Your task to perform on an android device: Google the capital of Canada Image 0: 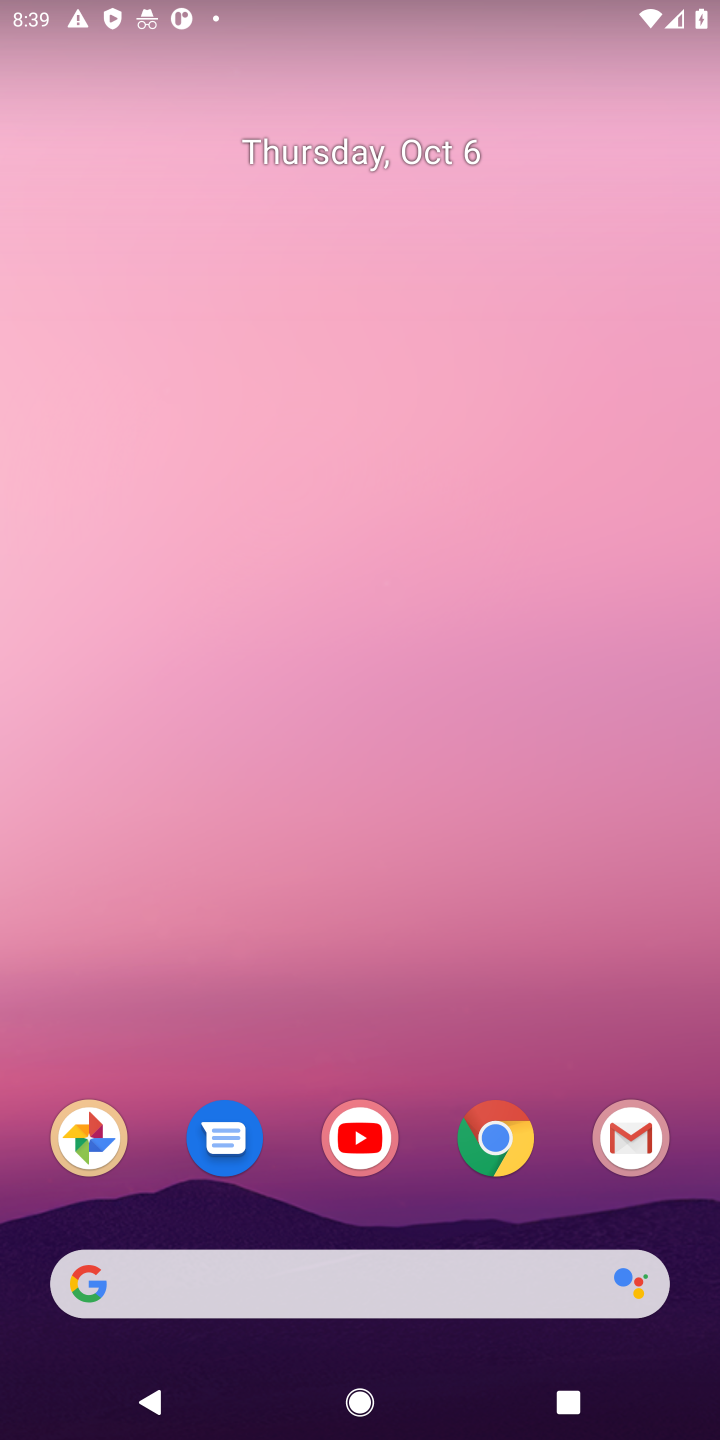
Step 0: click (491, 1131)
Your task to perform on an android device: Google the capital of Canada Image 1: 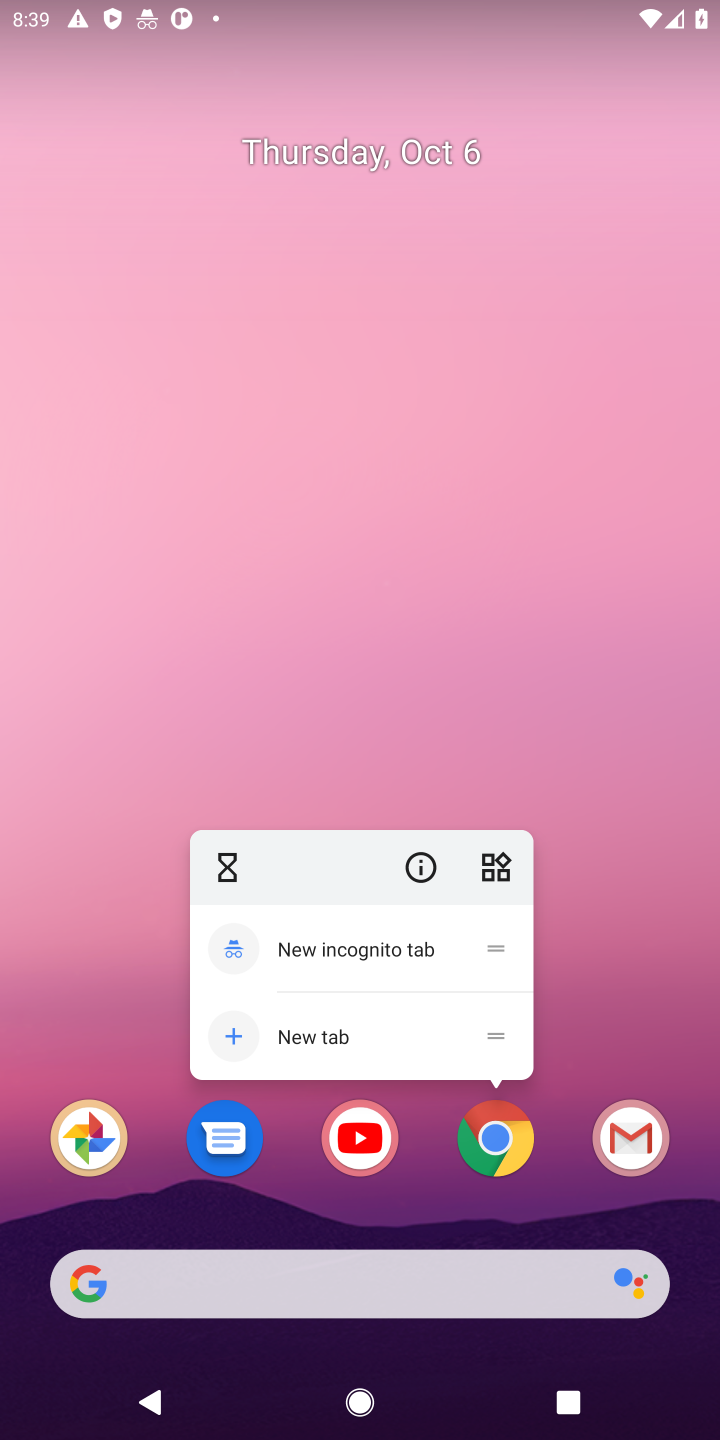
Step 1: click (493, 1143)
Your task to perform on an android device: Google the capital of Canada Image 2: 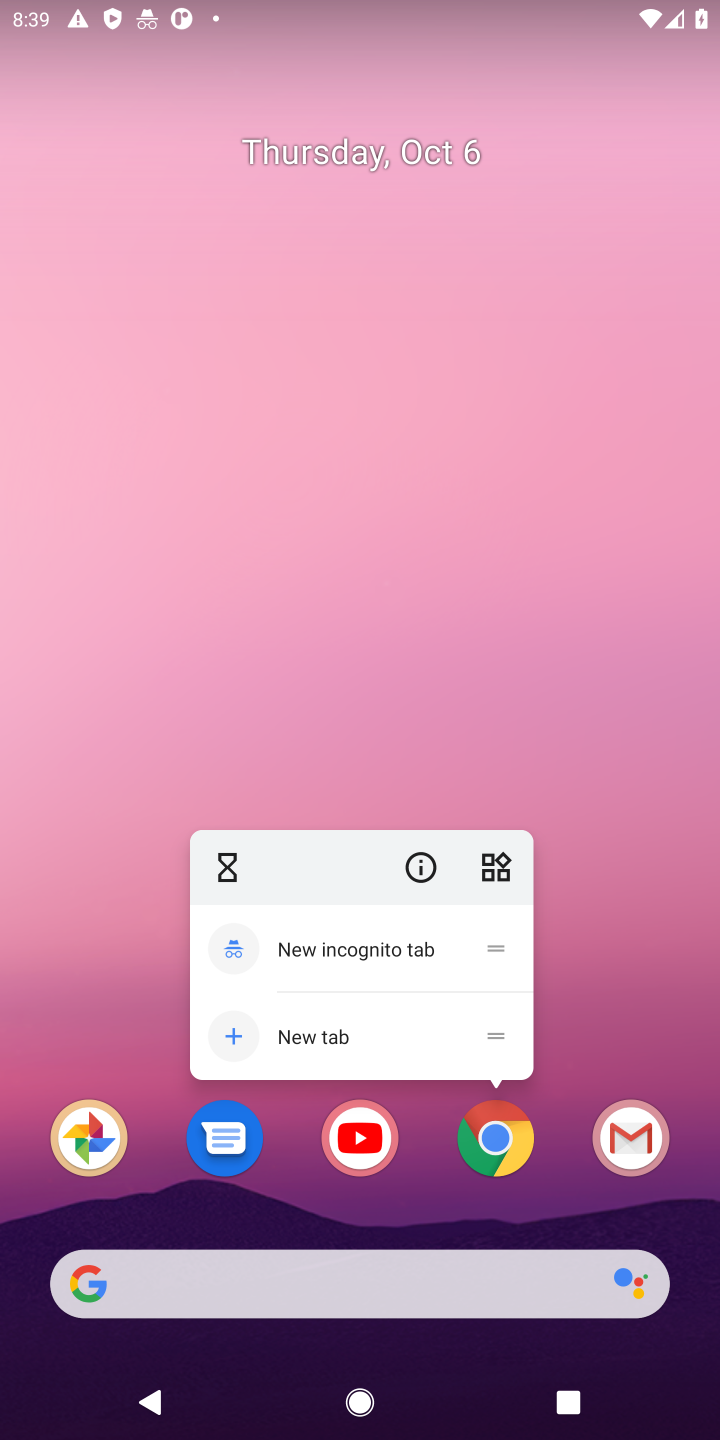
Step 2: click (493, 1121)
Your task to perform on an android device: Google the capital of Canada Image 3: 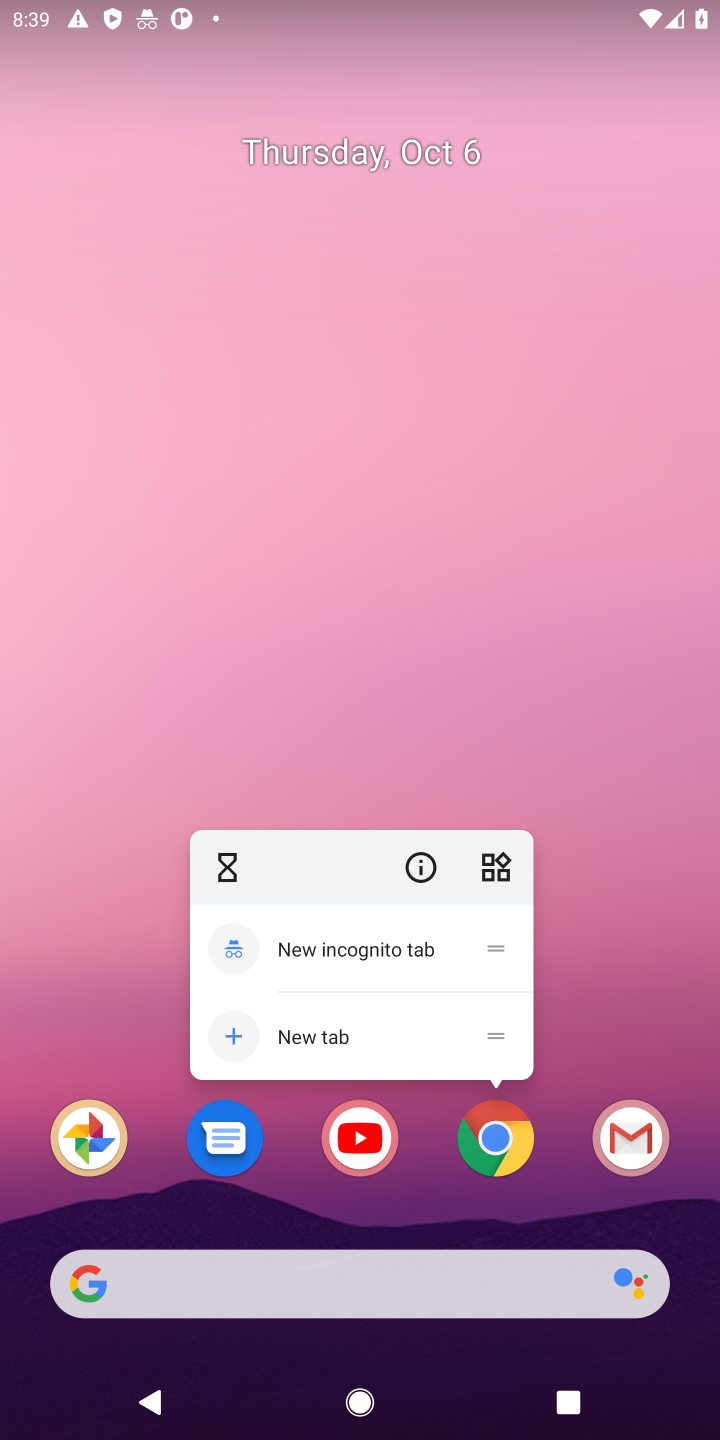
Step 3: click (493, 1128)
Your task to perform on an android device: Google the capital of Canada Image 4: 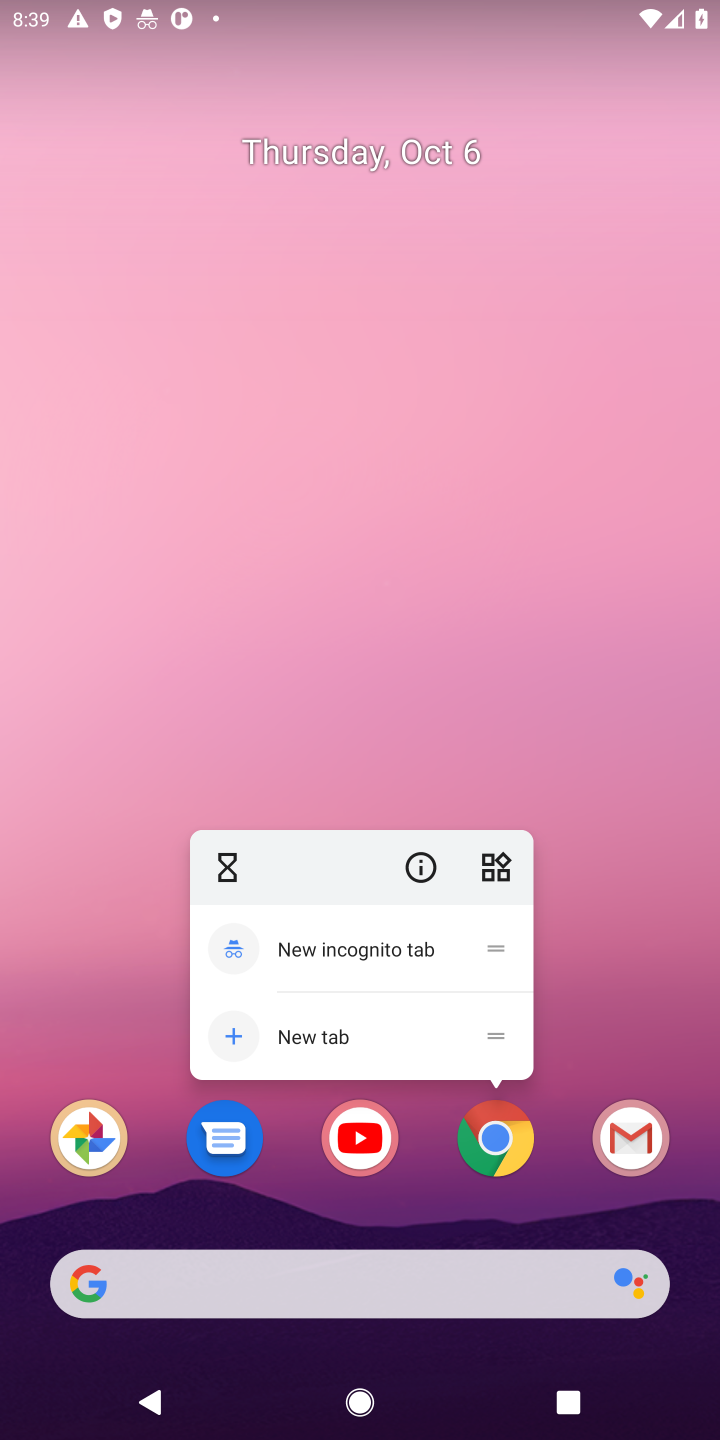
Step 4: click (498, 1139)
Your task to perform on an android device: Google the capital of Canada Image 5: 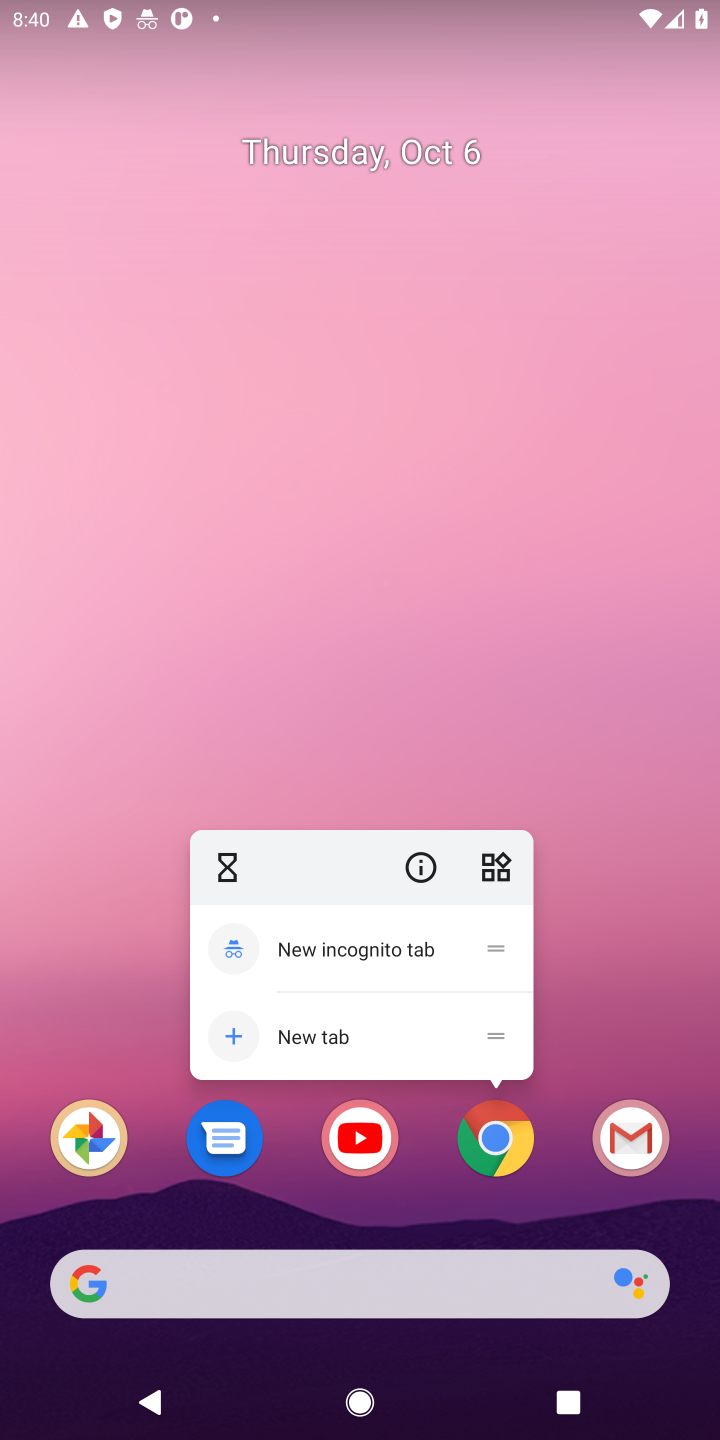
Step 5: click (498, 1144)
Your task to perform on an android device: Google the capital of Canada Image 6: 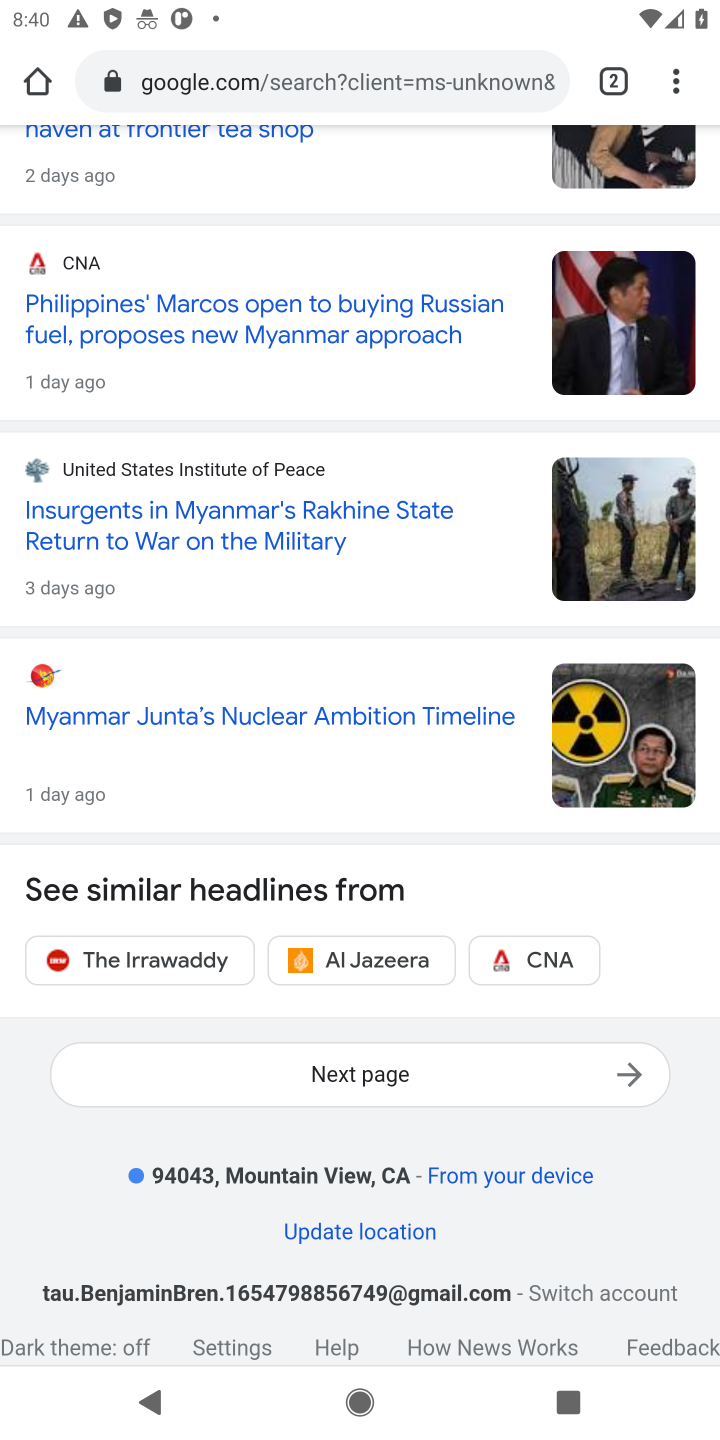
Step 6: click (438, 80)
Your task to perform on an android device: Google the capital of Canada Image 7: 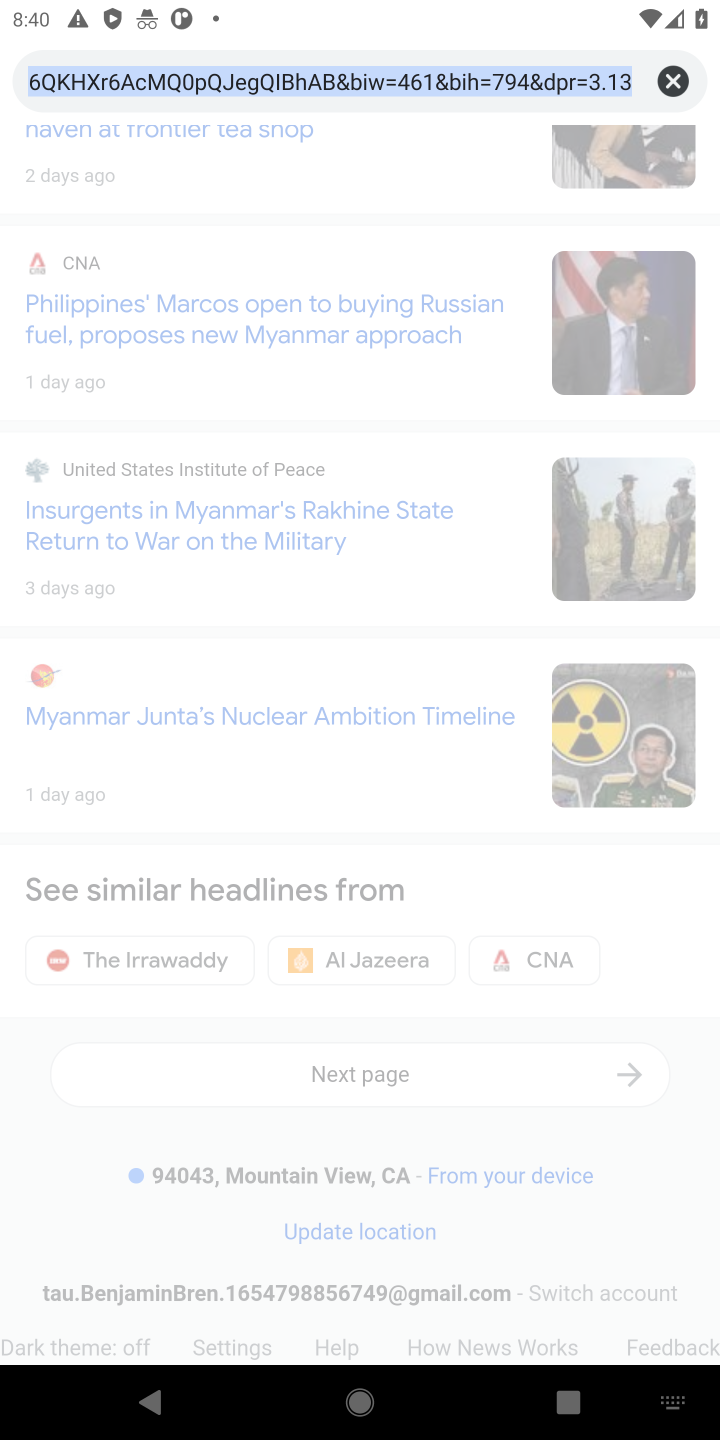
Step 7: click (673, 83)
Your task to perform on an android device: Google the capital of Canada Image 8: 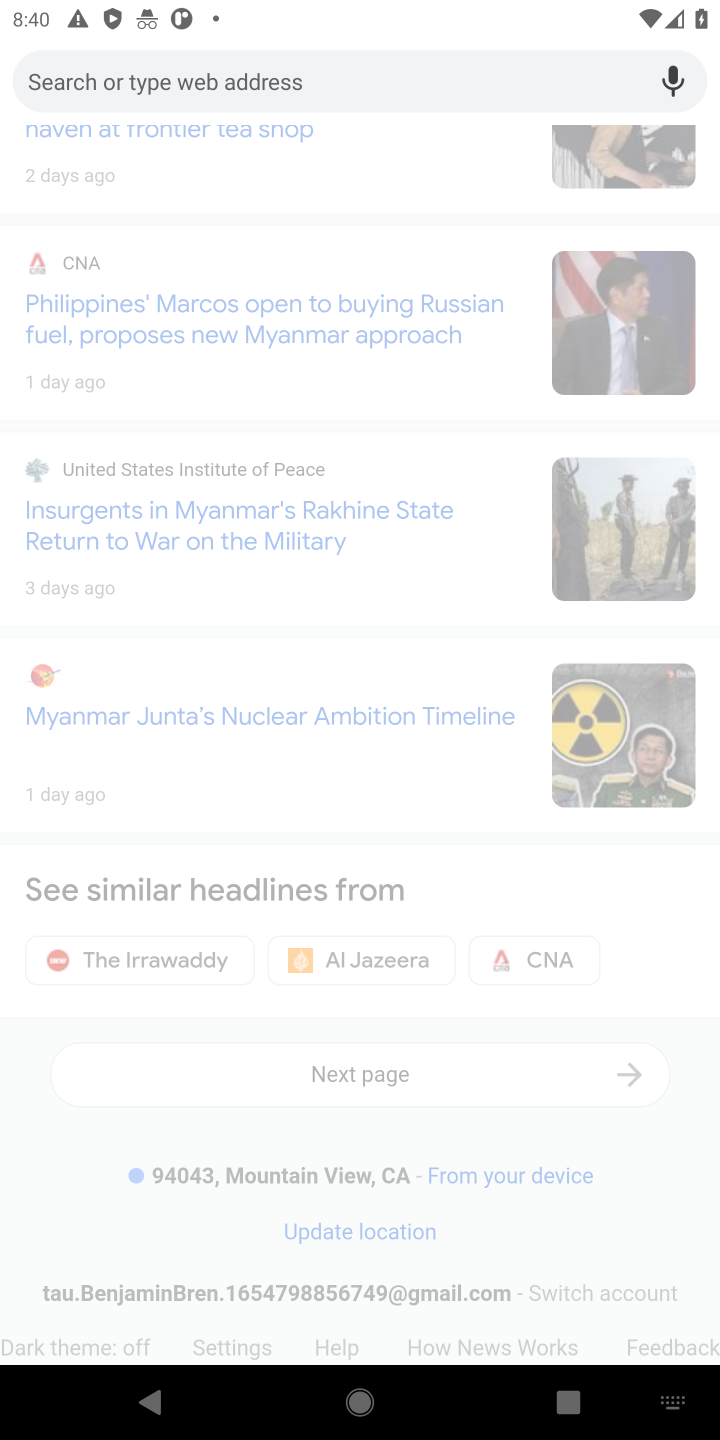
Step 8: press enter
Your task to perform on an android device: Google the capital of Canada Image 9: 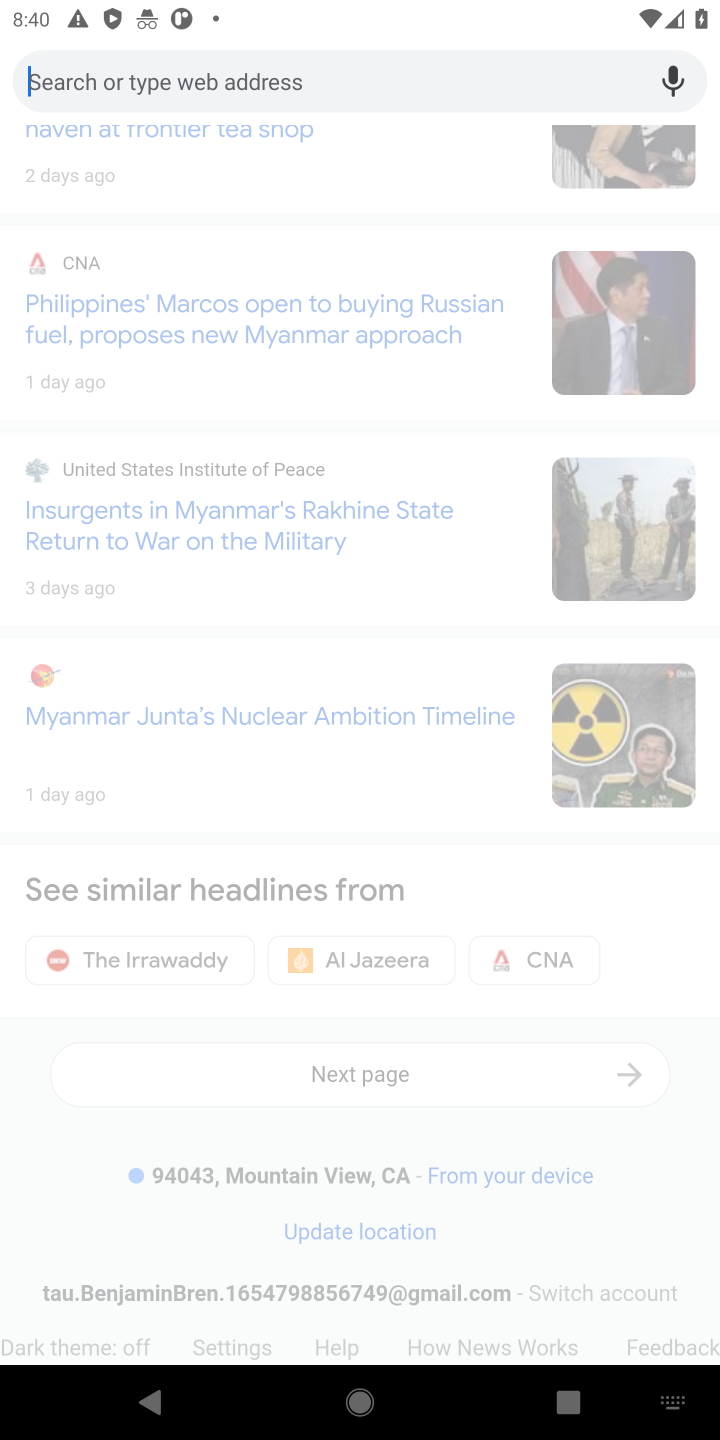
Step 9: type "capital of Canada"
Your task to perform on an android device: Google the capital of Canada Image 10: 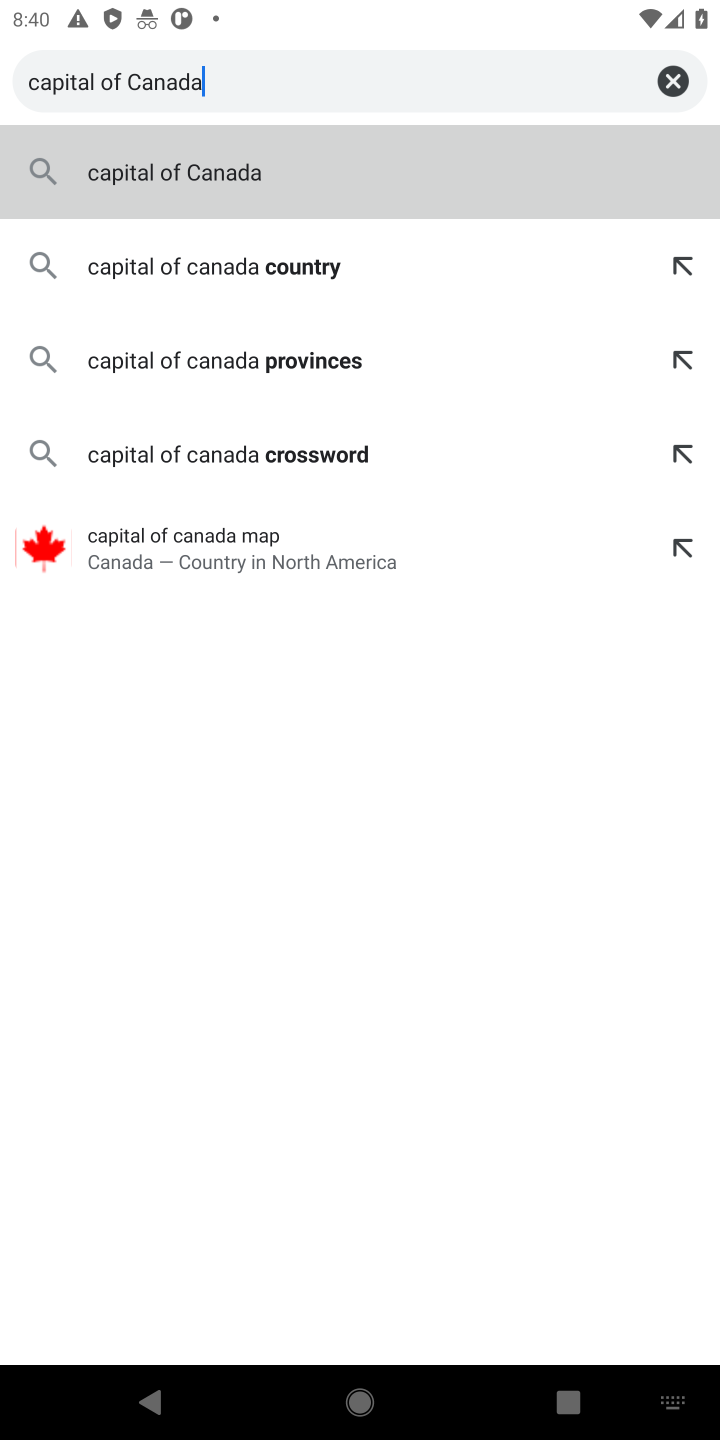
Step 10: click (224, 171)
Your task to perform on an android device: Google the capital of Canada Image 11: 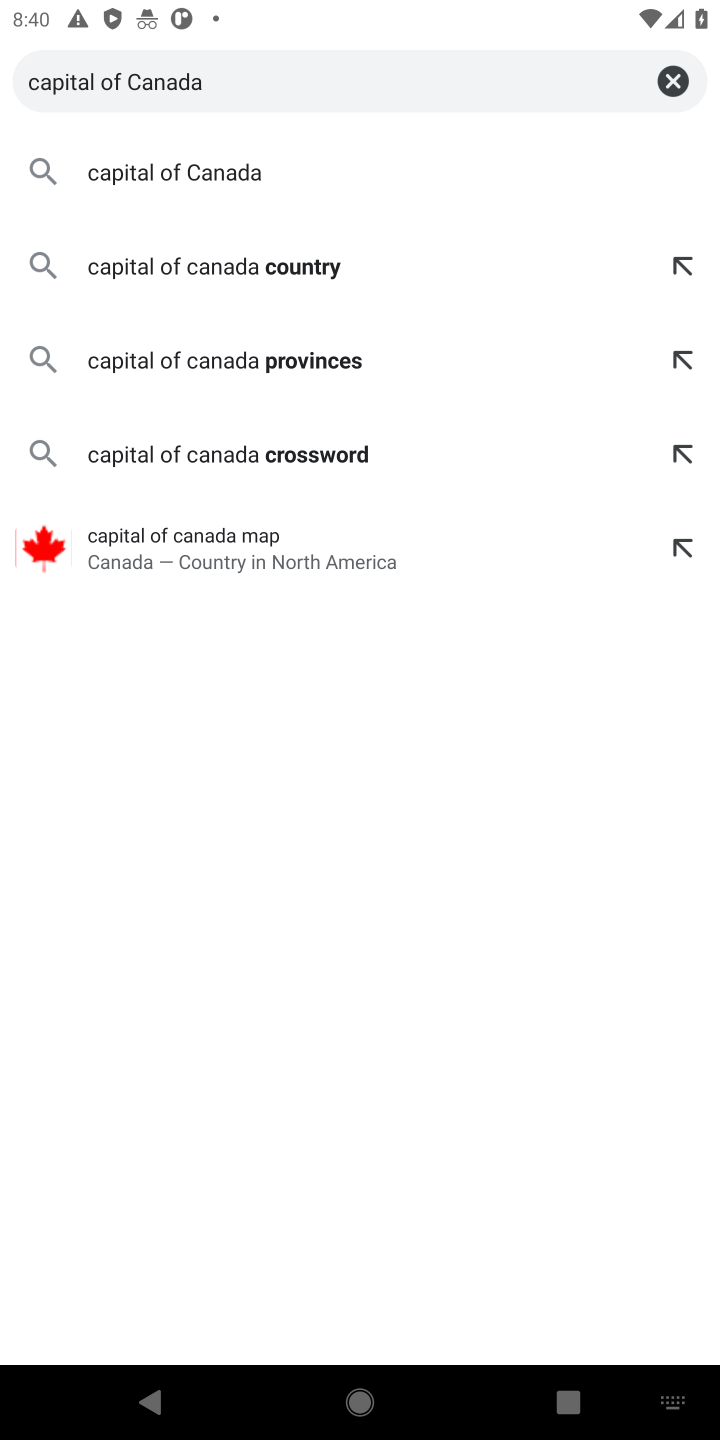
Step 11: click (211, 184)
Your task to perform on an android device: Google the capital of Canada Image 12: 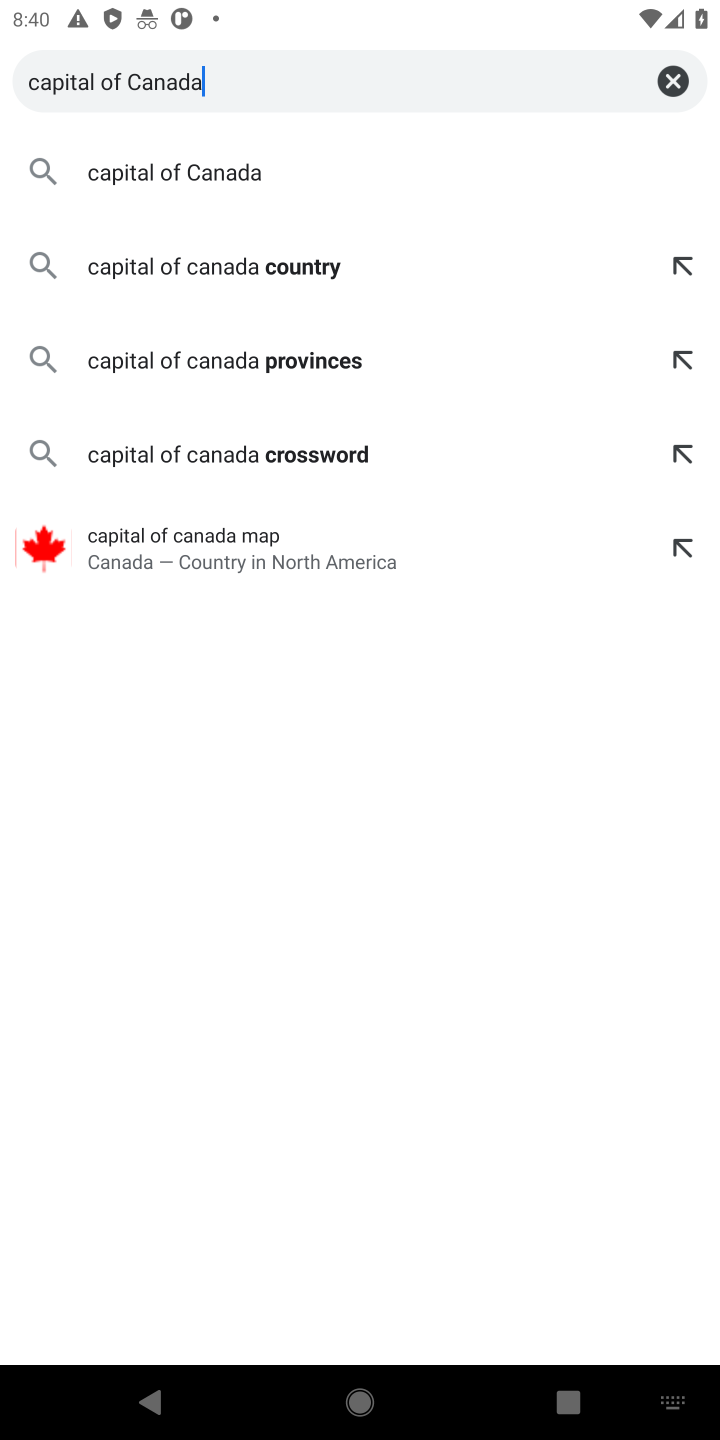
Step 12: click (165, 177)
Your task to perform on an android device: Google the capital of Canada Image 13: 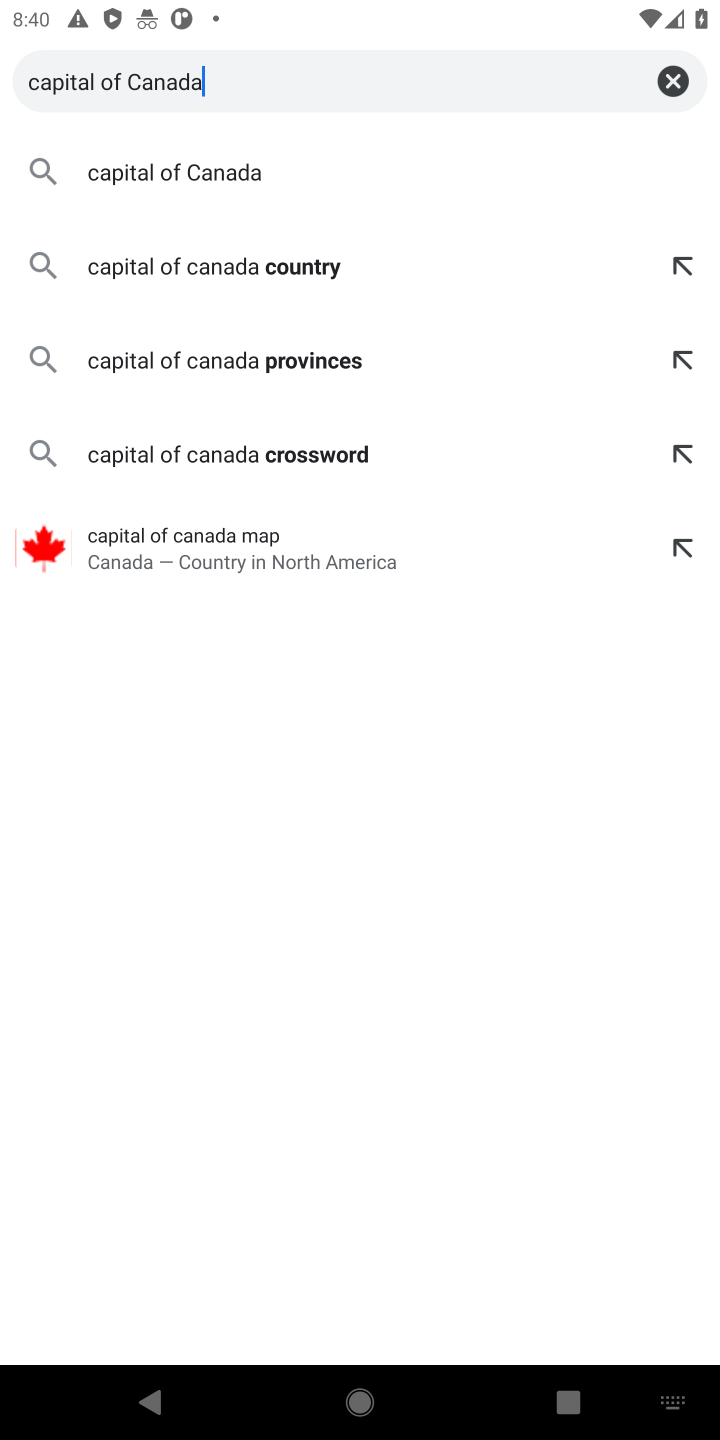
Step 13: click (240, 168)
Your task to perform on an android device: Google the capital of Canada Image 14: 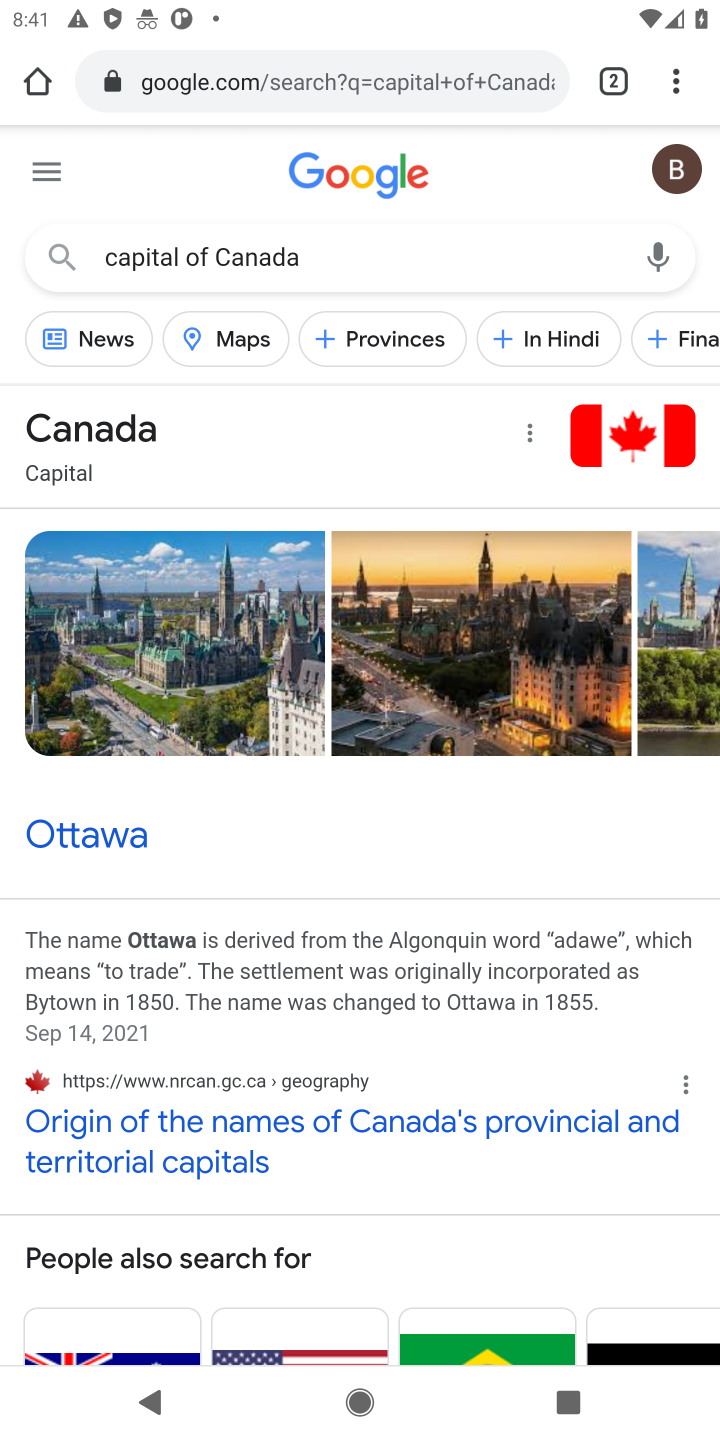
Step 14: click (89, 343)
Your task to perform on an android device: Google the capital of Canada Image 15: 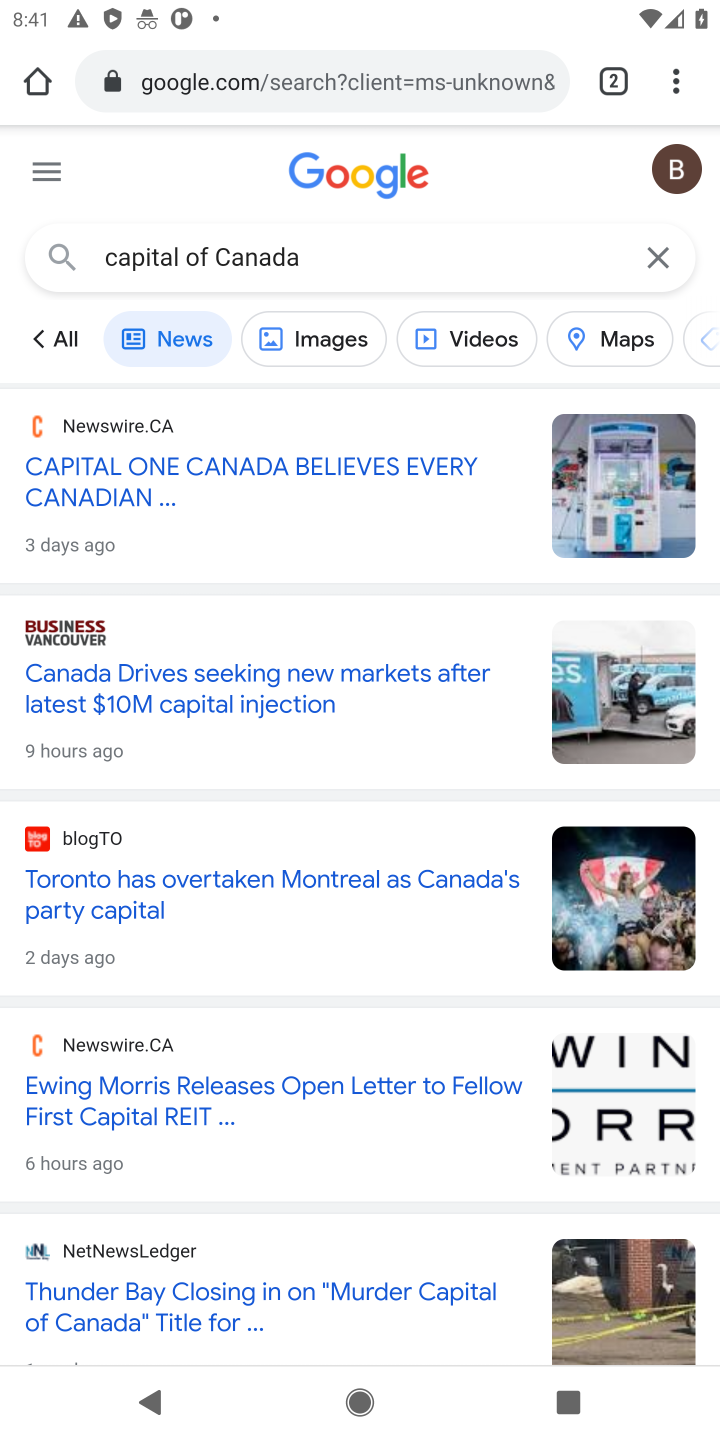
Step 15: task complete